Your task to perform on an android device: turn on sleep mode Image 0: 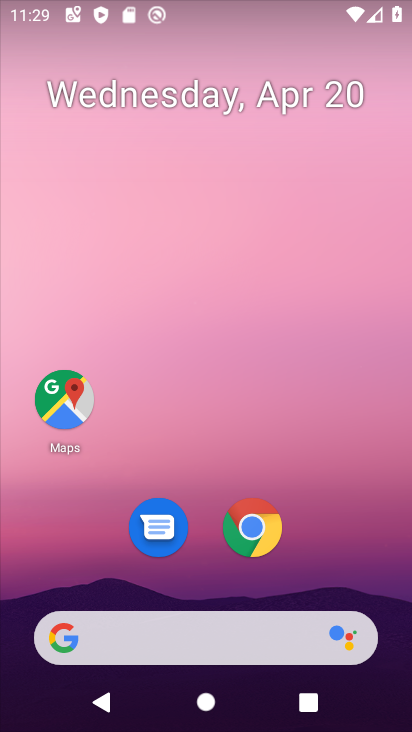
Step 0: drag from (316, 393) to (291, 64)
Your task to perform on an android device: turn on sleep mode Image 1: 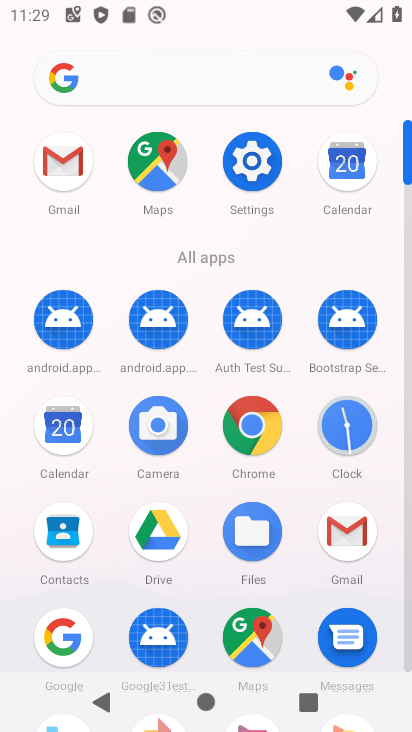
Step 1: click (263, 168)
Your task to perform on an android device: turn on sleep mode Image 2: 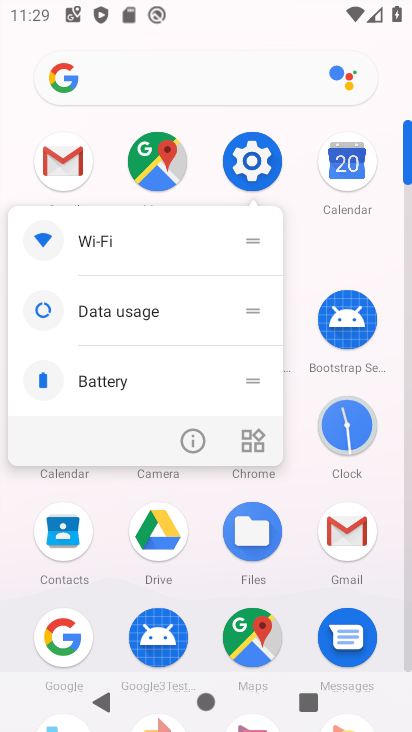
Step 2: drag from (288, 585) to (288, 15)
Your task to perform on an android device: turn on sleep mode Image 3: 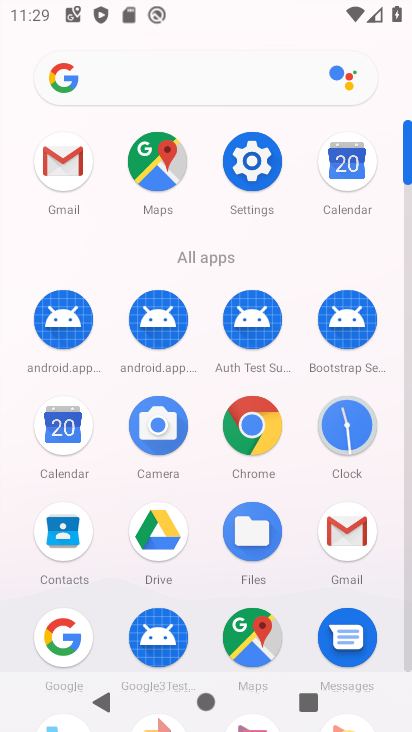
Step 3: drag from (214, 560) to (240, 239)
Your task to perform on an android device: turn on sleep mode Image 4: 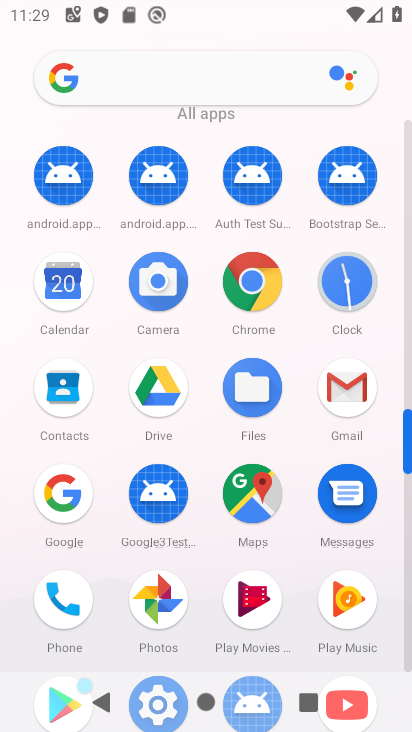
Step 4: drag from (209, 605) to (244, 310)
Your task to perform on an android device: turn on sleep mode Image 5: 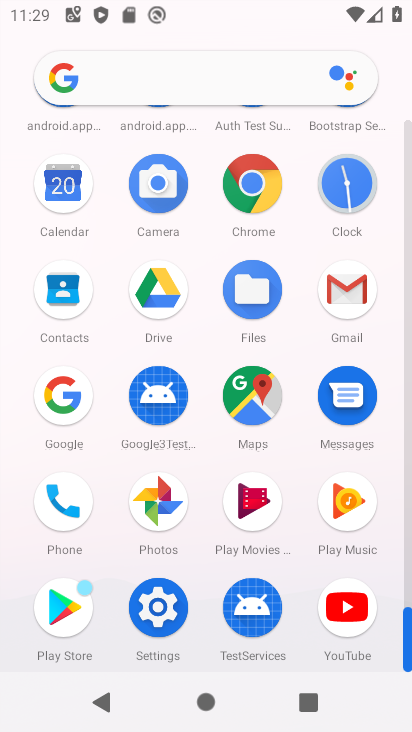
Step 5: click (167, 621)
Your task to perform on an android device: turn on sleep mode Image 6: 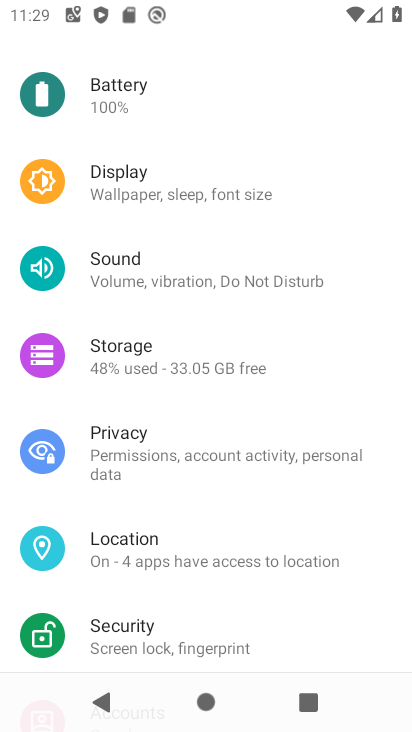
Step 6: click (212, 206)
Your task to perform on an android device: turn on sleep mode Image 7: 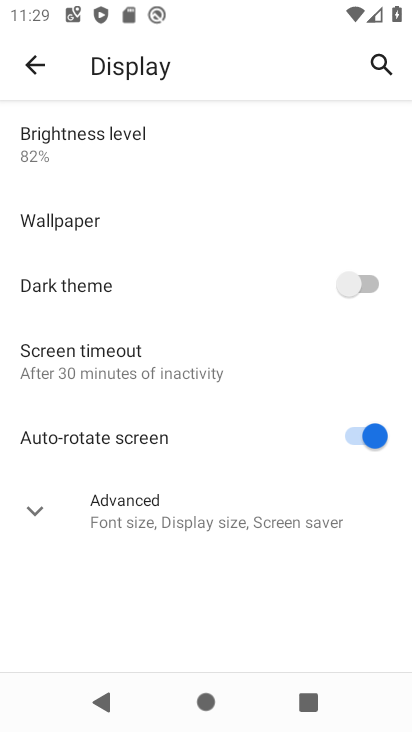
Step 7: click (193, 375)
Your task to perform on an android device: turn on sleep mode Image 8: 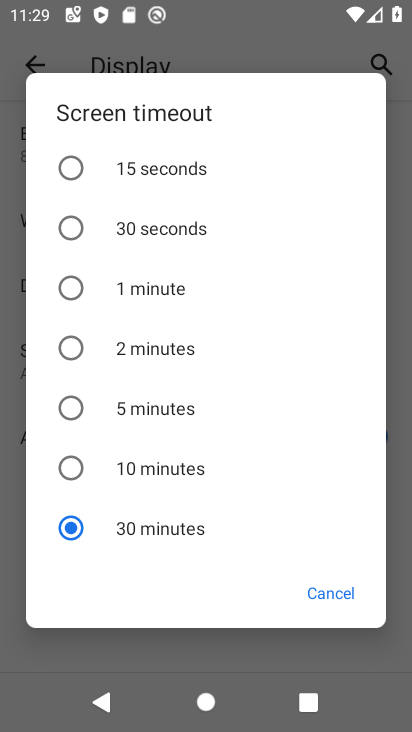
Step 8: task complete